Your task to perform on an android device: Go to sound settings Image 0: 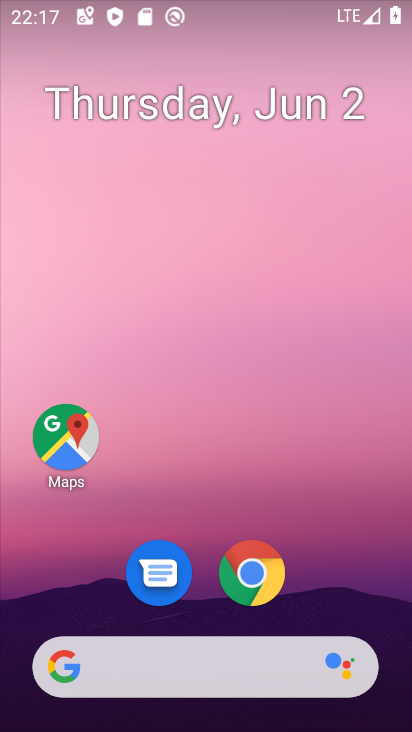
Step 0: drag from (367, 545) to (272, 10)
Your task to perform on an android device: Go to sound settings Image 1: 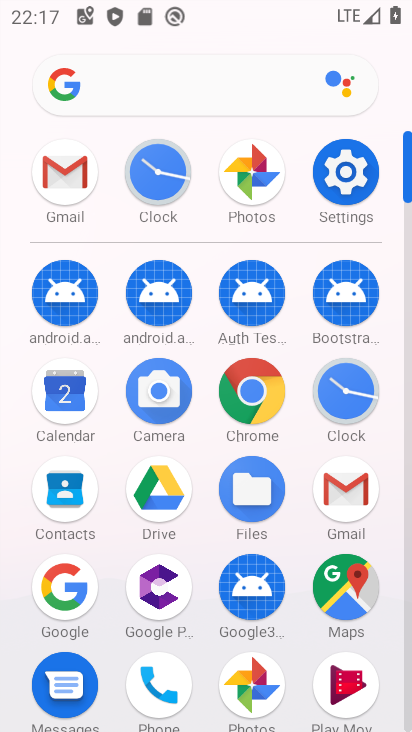
Step 1: click (333, 177)
Your task to perform on an android device: Go to sound settings Image 2: 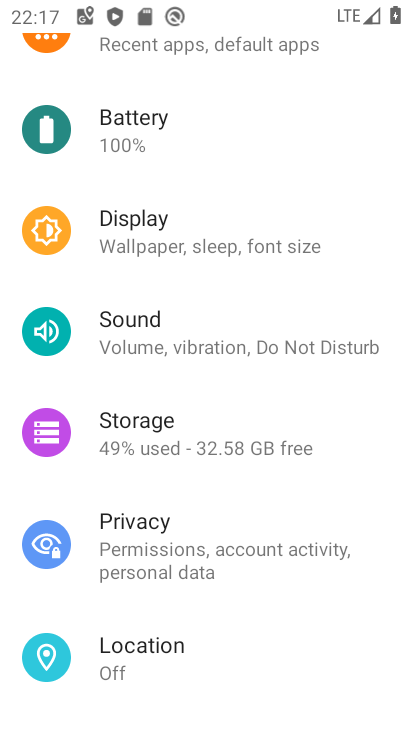
Step 2: click (251, 322)
Your task to perform on an android device: Go to sound settings Image 3: 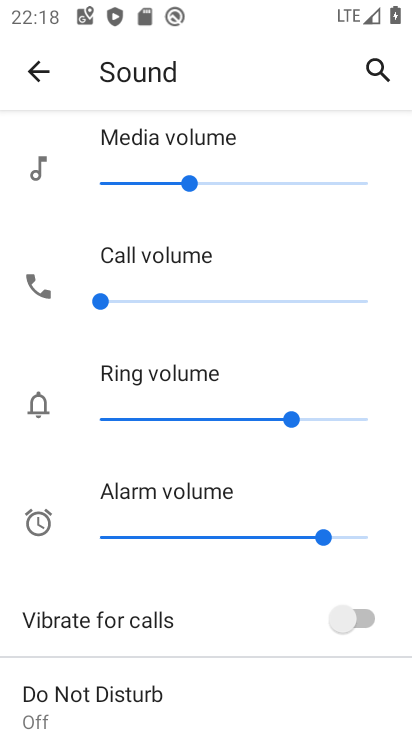
Step 3: task complete